Your task to perform on an android device: What is the news today? Image 0: 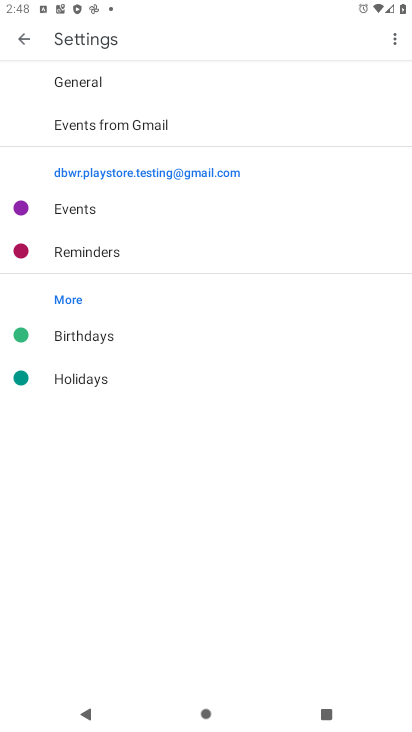
Step 0: press home button
Your task to perform on an android device: What is the news today? Image 1: 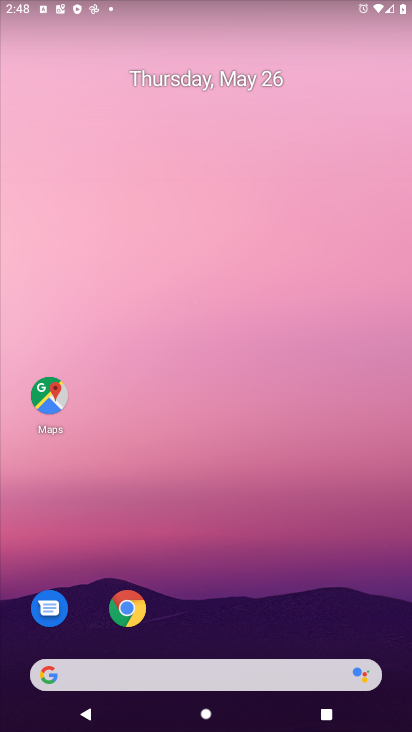
Step 1: task complete